Your task to perform on an android device: open app "TextNow: Call + Text Unlimited" (install if not already installed), go to login, and select forgot password Image 0: 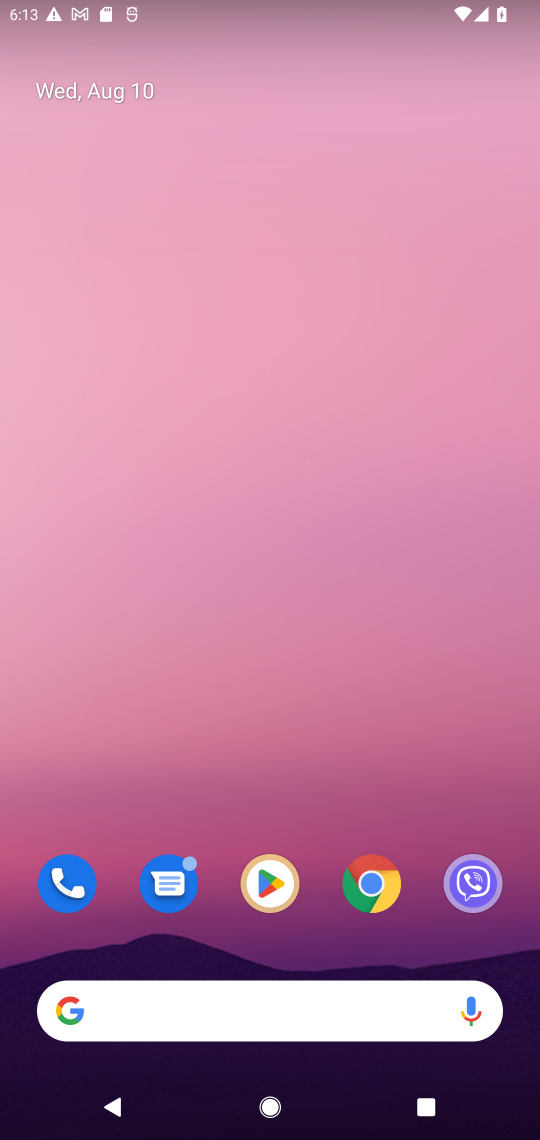
Step 0: click (246, 869)
Your task to perform on an android device: open app "TextNow: Call + Text Unlimited" (install if not already installed), go to login, and select forgot password Image 1: 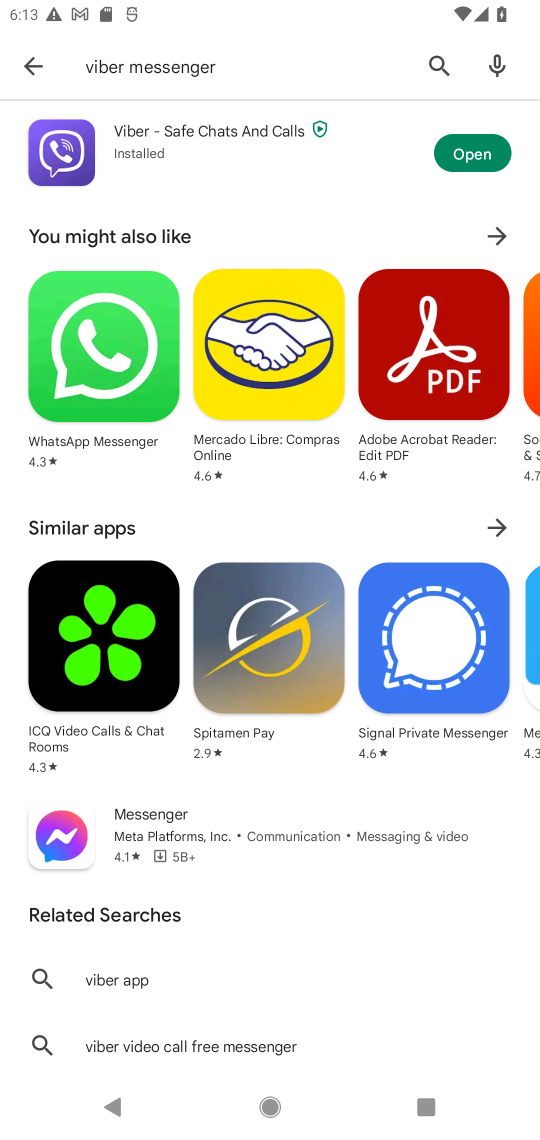
Step 1: click (440, 63)
Your task to perform on an android device: open app "TextNow: Call + Text Unlimited" (install if not already installed), go to login, and select forgot password Image 2: 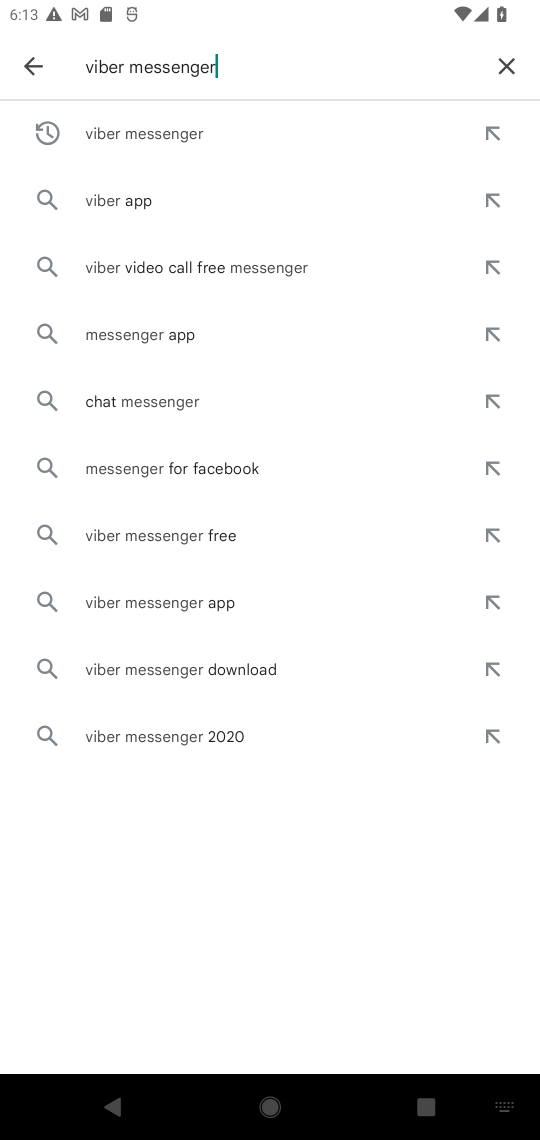
Step 2: click (494, 67)
Your task to perform on an android device: open app "TextNow: Call + Text Unlimited" (install if not already installed), go to login, and select forgot password Image 3: 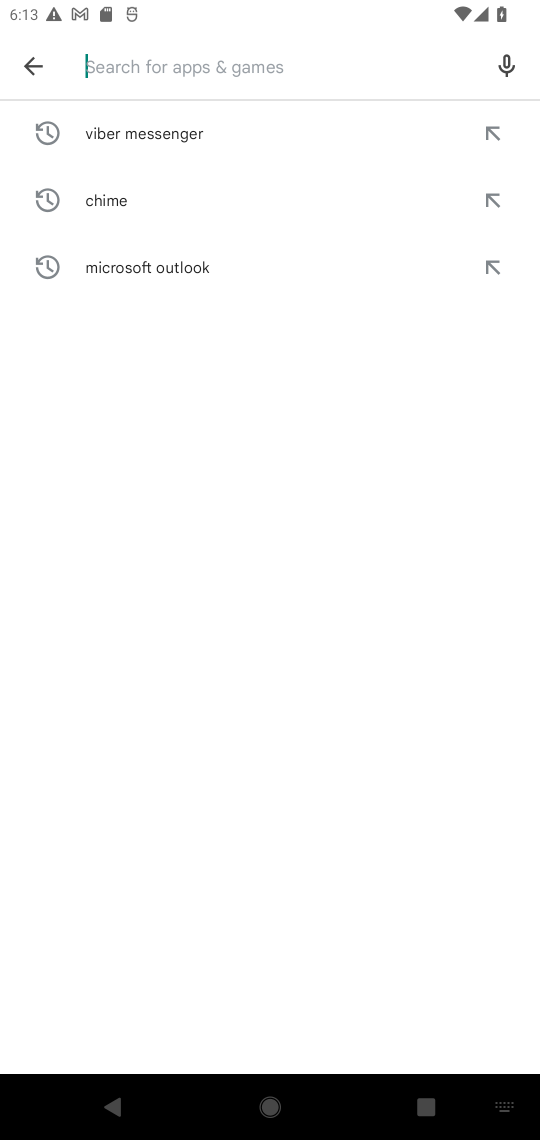
Step 3: type "TextNow: Call + Text Unlimited"
Your task to perform on an android device: open app "TextNow: Call + Text Unlimited" (install if not already installed), go to login, and select forgot password Image 4: 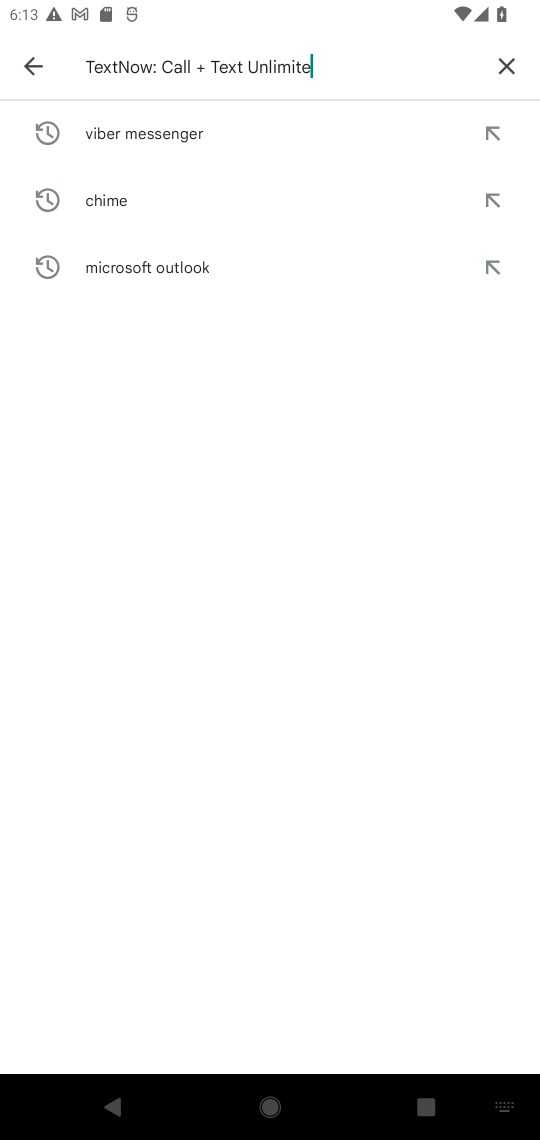
Step 4: type ""
Your task to perform on an android device: open app "TextNow: Call + Text Unlimited" (install if not already installed), go to login, and select forgot password Image 5: 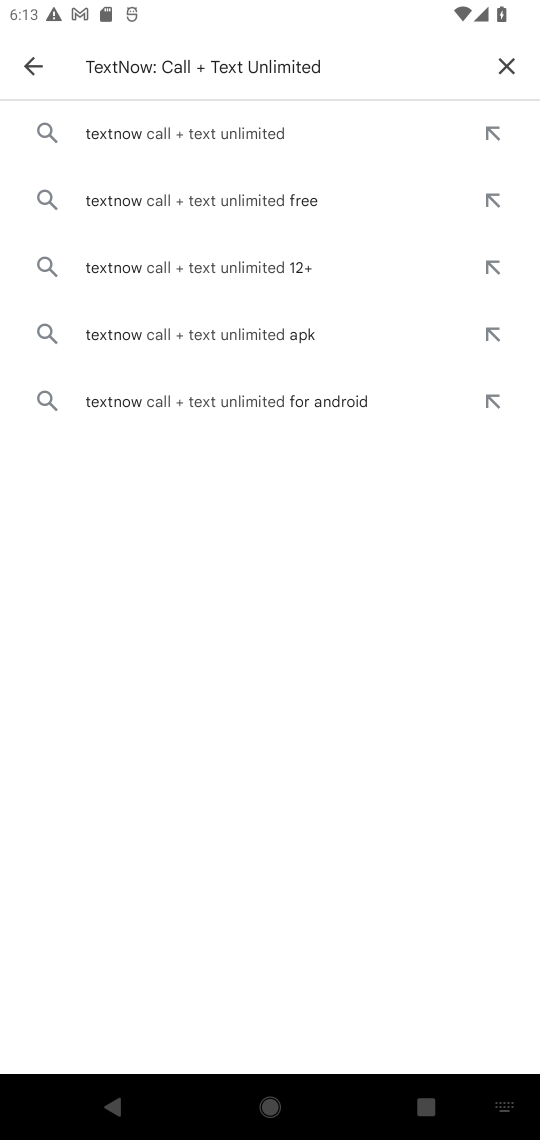
Step 5: click (268, 129)
Your task to perform on an android device: open app "TextNow: Call + Text Unlimited" (install if not already installed), go to login, and select forgot password Image 6: 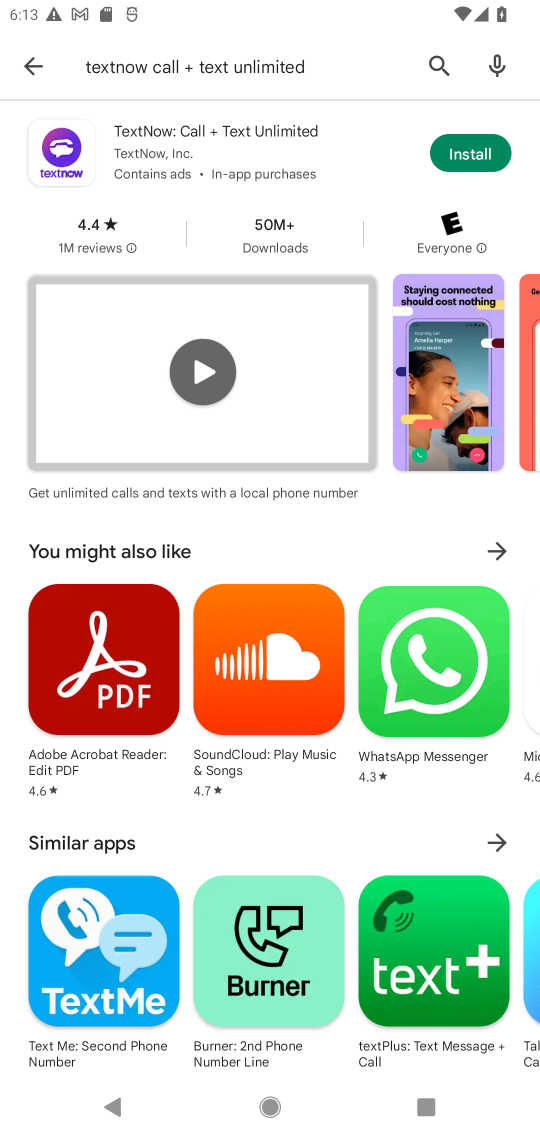
Step 6: click (477, 151)
Your task to perform on an android device: open app "TextNow: Call + Text Unlimited" (install if not already installed), go to login, and select forgot password Image 7: 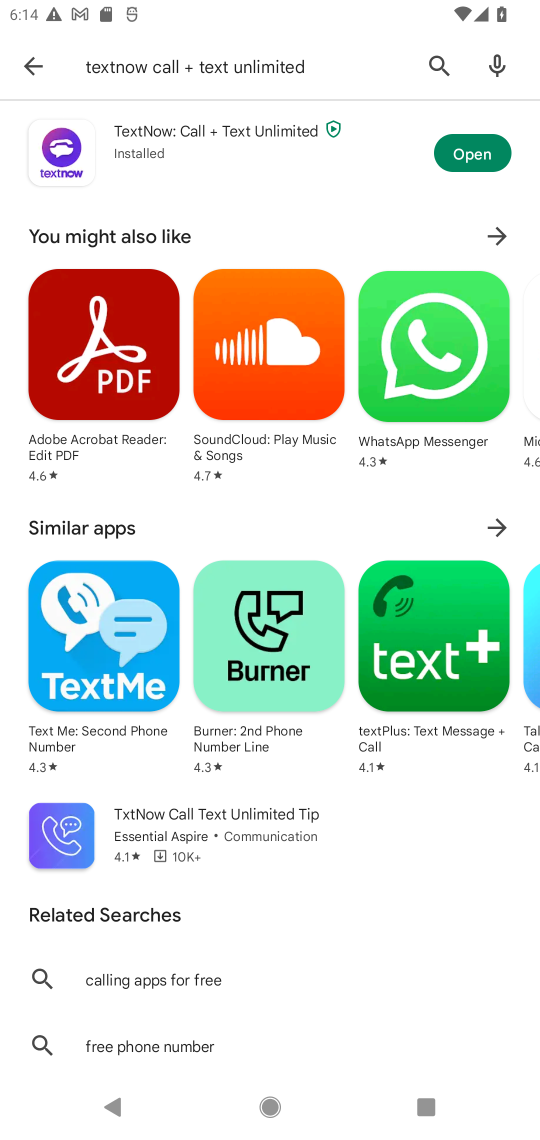
Step 7: click (477, 151)
Your task to perform on an android device: open app "TextNow: Call + Text Unlimited" (install if not already installed), go to login, and select forgot password Image 8: 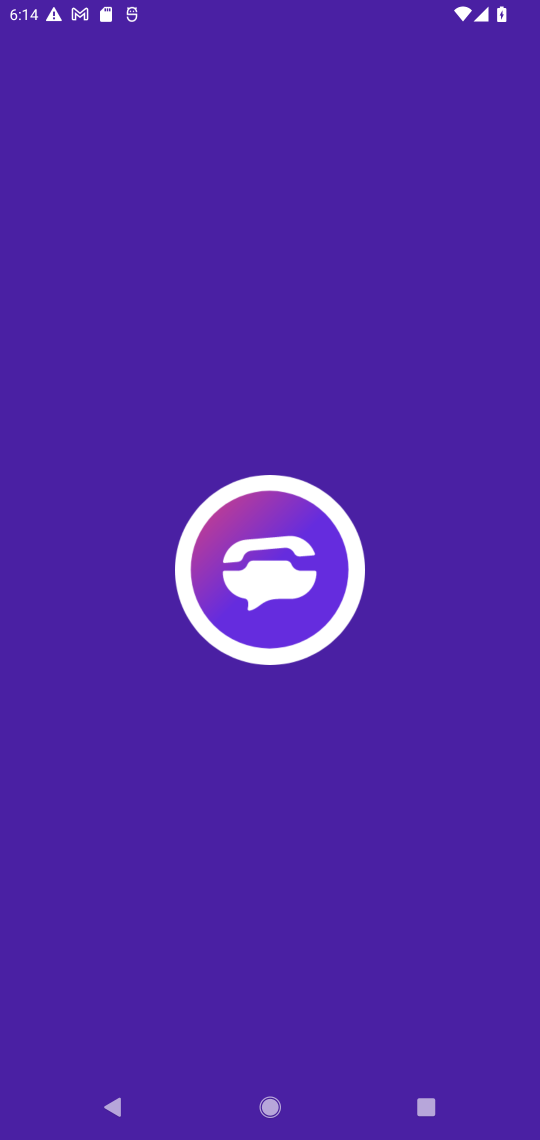
Step 8: task complete